Your task to perform on an android device: Show me productivity apps on the Play Store Image 0: 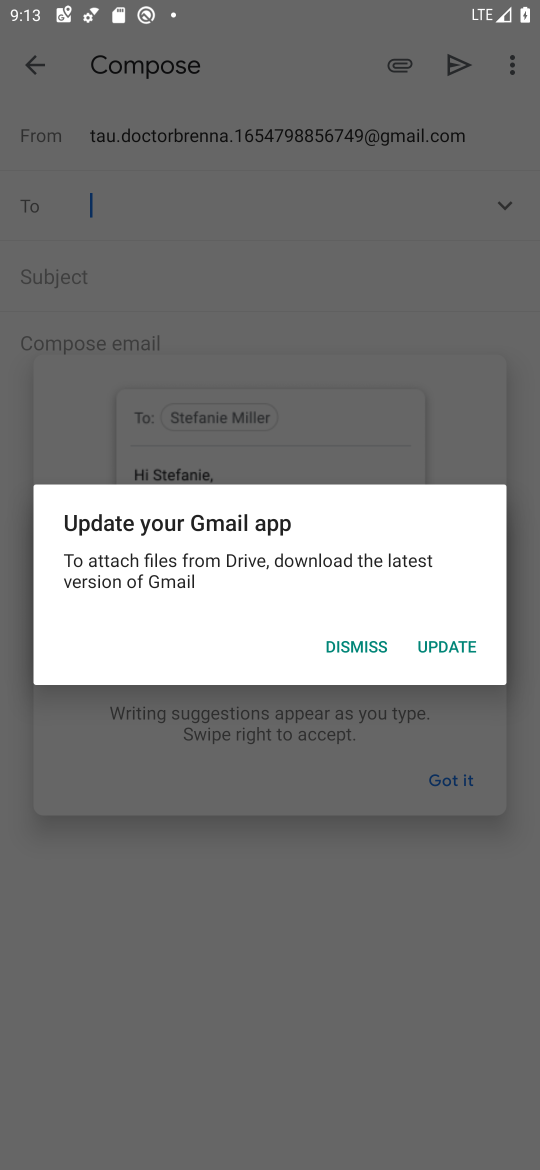
Step 0: press home button
Your task to perform on an android device: Show me productivity apps on the Play Store Image 1: 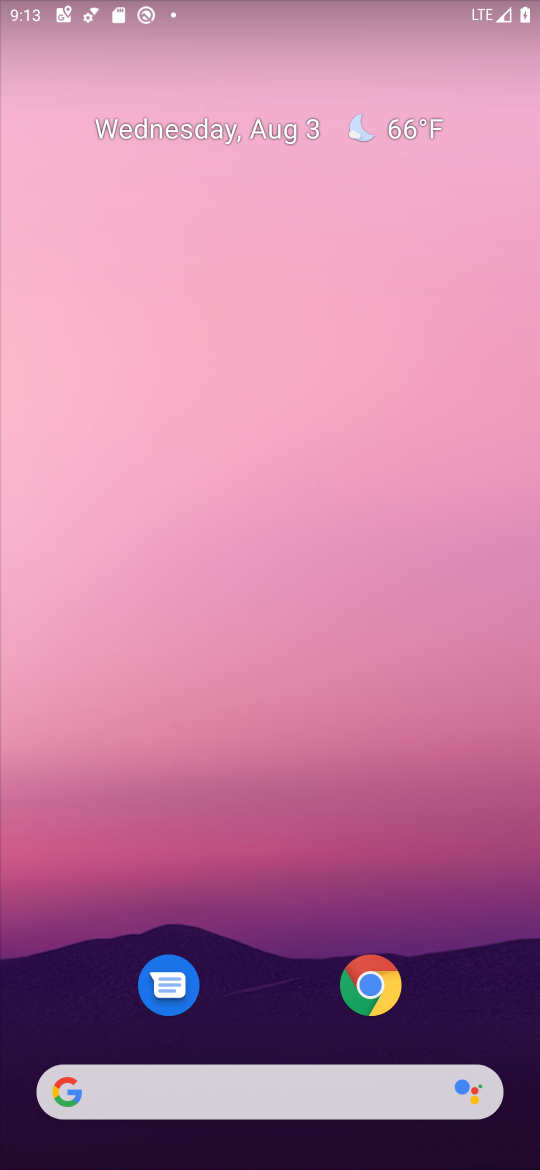
Step 1: drag from (275, 872) to (322, 304)
Your task to perform on an android device: Show me productivity apps on the Play Store Image 2: 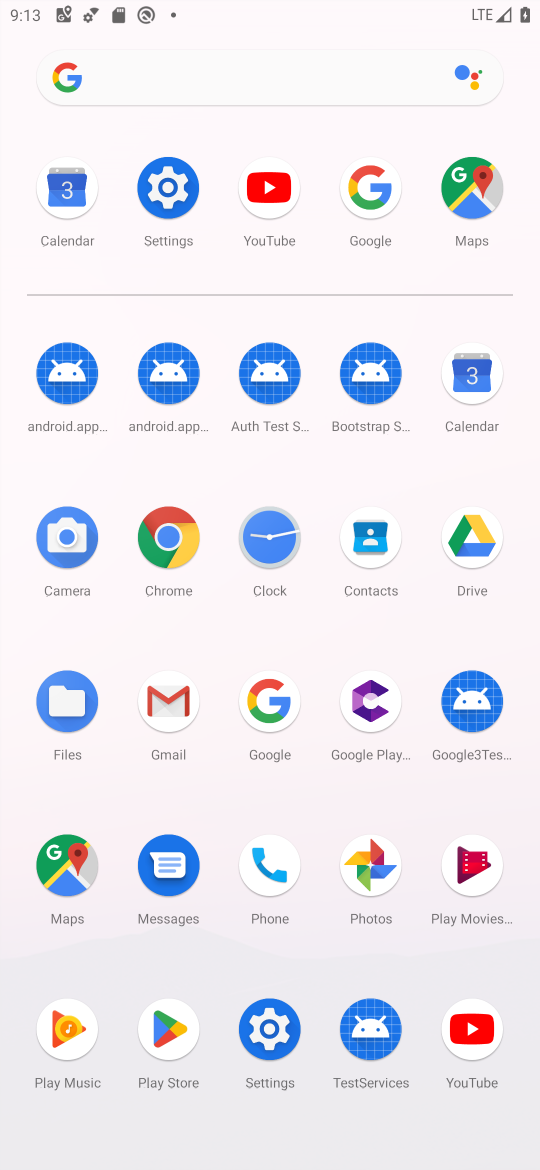
Step 2: click (162, 1034)
Your task to perform on an android device: Show me productivity apps on the Play Store Image 3: 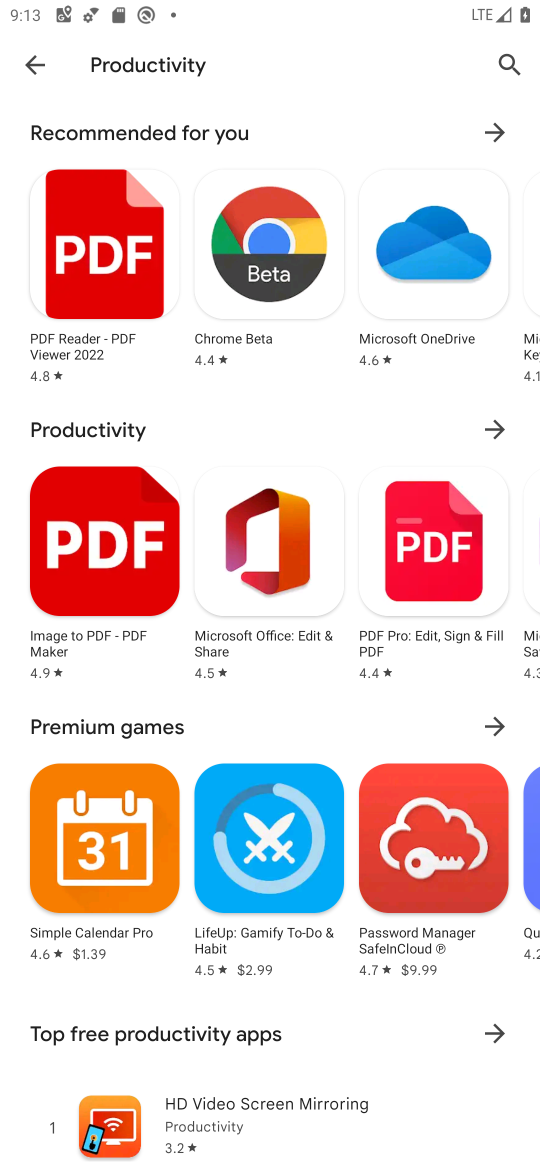
Step 3: task complete